Your task to perform on an android device: Open the Play Movies app and select the watchlist tab. Image 0: 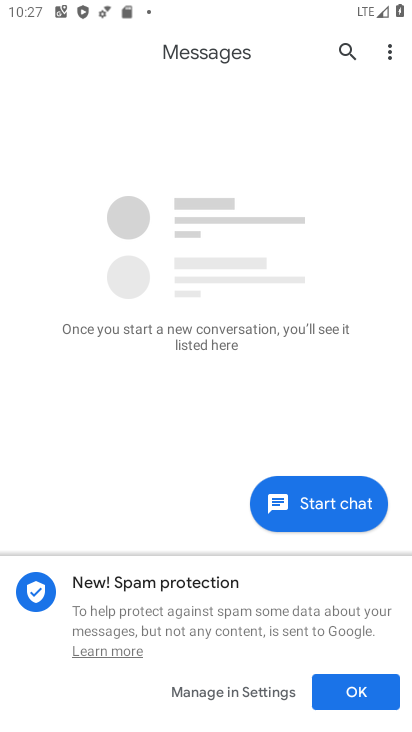
Step 0: press home button
Your task to perform on an android device: Open the Play Movies app and select the watchlist tab. Image 1: 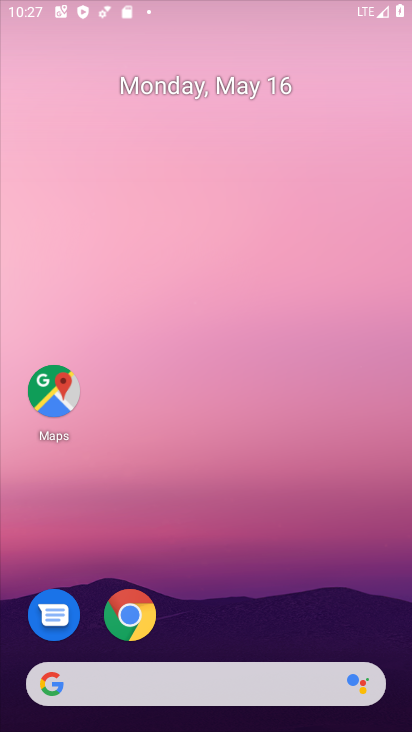
Step 1: drag from (243, 628) to (376, 80)
Your task to perform on an android device: Open the Play Movies app and select the watchlist tab. Image 2: 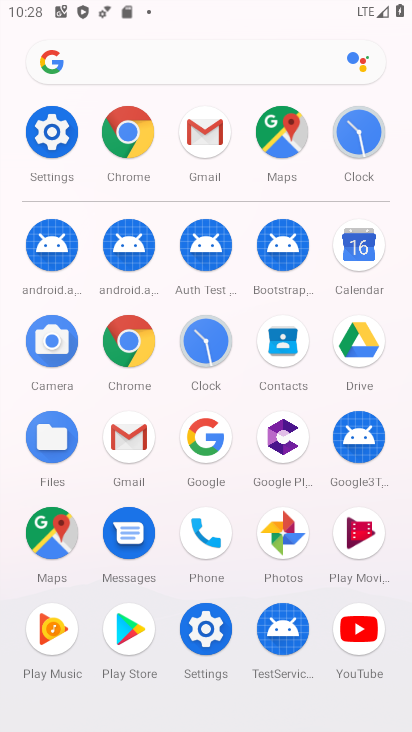
Step 2: click (355, 553)
Your task to perform on an android device: Open the Play Movies app and select the watchlist tab. Image 3: 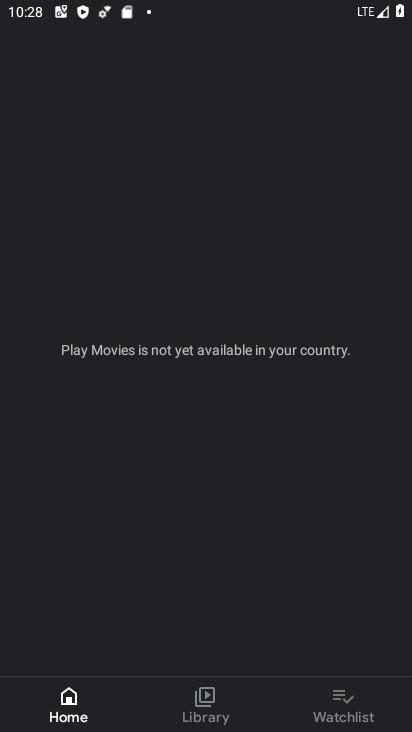
Step 3: click (333, 719)
Your task to perform on an android device: Open the Play Movies app and select the watchlist tab. Image 4: 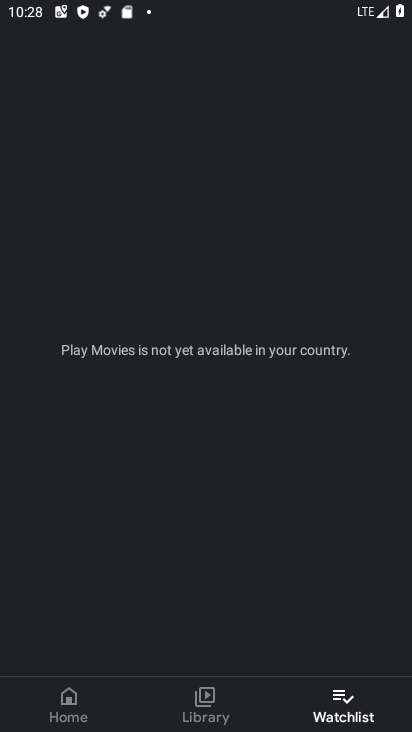
Step 4: task complete